Your task to perform on an android device: Open the calendar and show me this week's events Image 0: 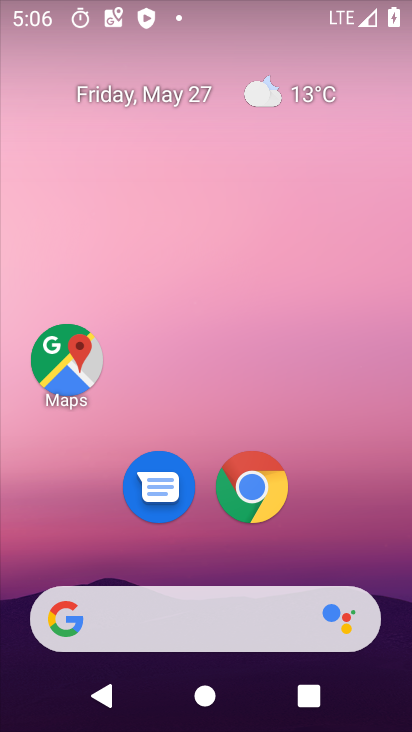
Step 0: drag from (356, 484) to (289, 124)
Your task to perform on an android device: Open the calendar and show me this week's events Image 1: 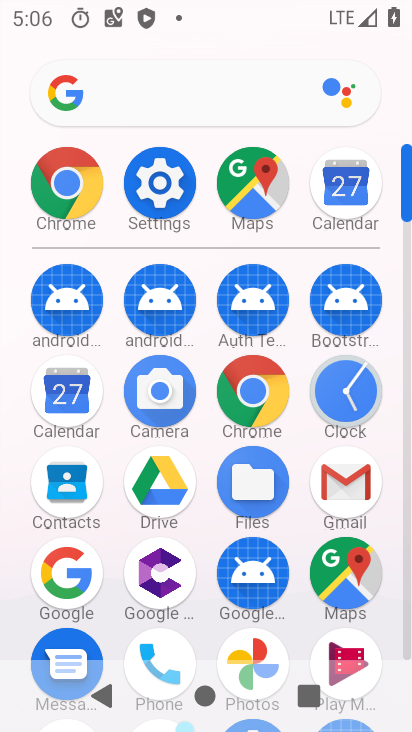
Step 1: click (73, 376)
Your task to perform on an android device: Open the calendar and show me this week's events Image 2: 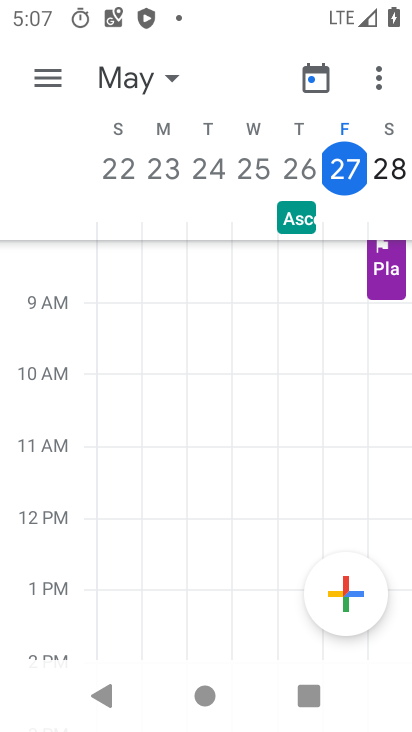
Step 2: click (162, 86)
Your task to perform on an android device: Open the calendar and show me this week's events Image 3: 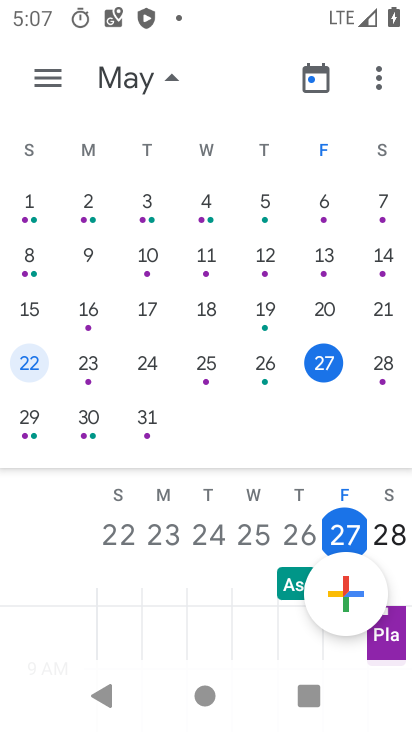
Step 3: click (323, 360)
Your task to perform on an android device: Open the calendar and show me this week's events Image 4: 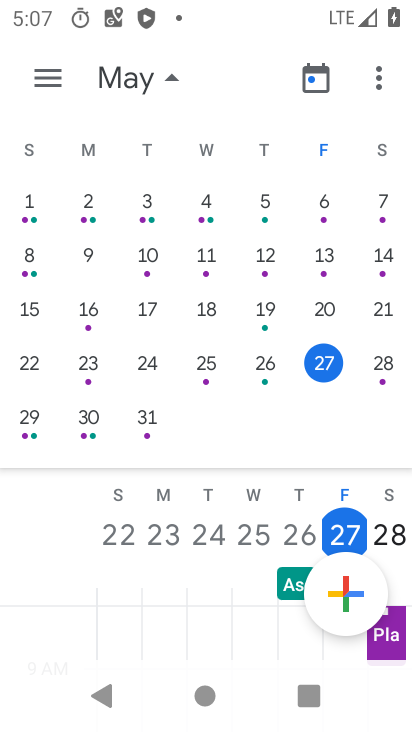
Step 4: task complete